Your task to perform on an android device: Show me popular videos on Youtube Image 0: 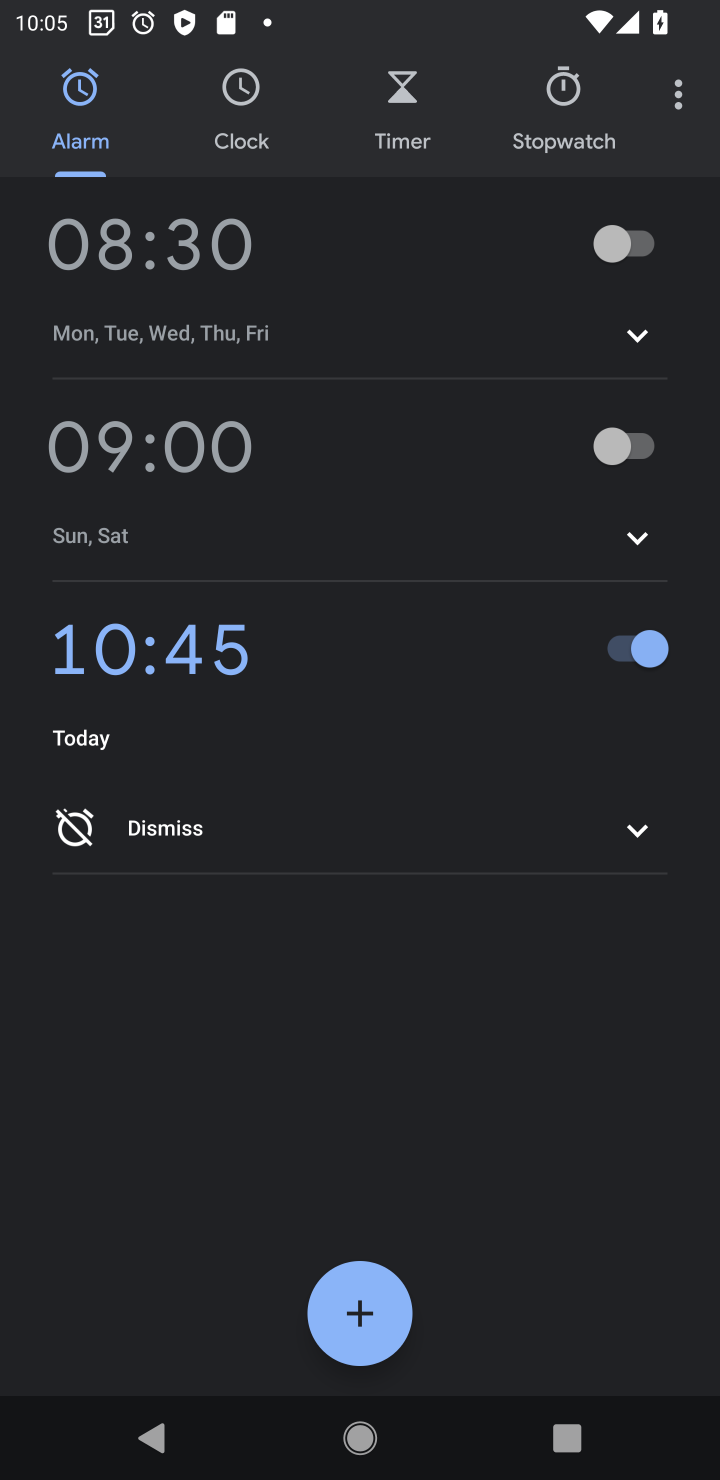
Step 0: press home button
Your task to perform on an android device: Show me popular videos on Youtube Image 1: 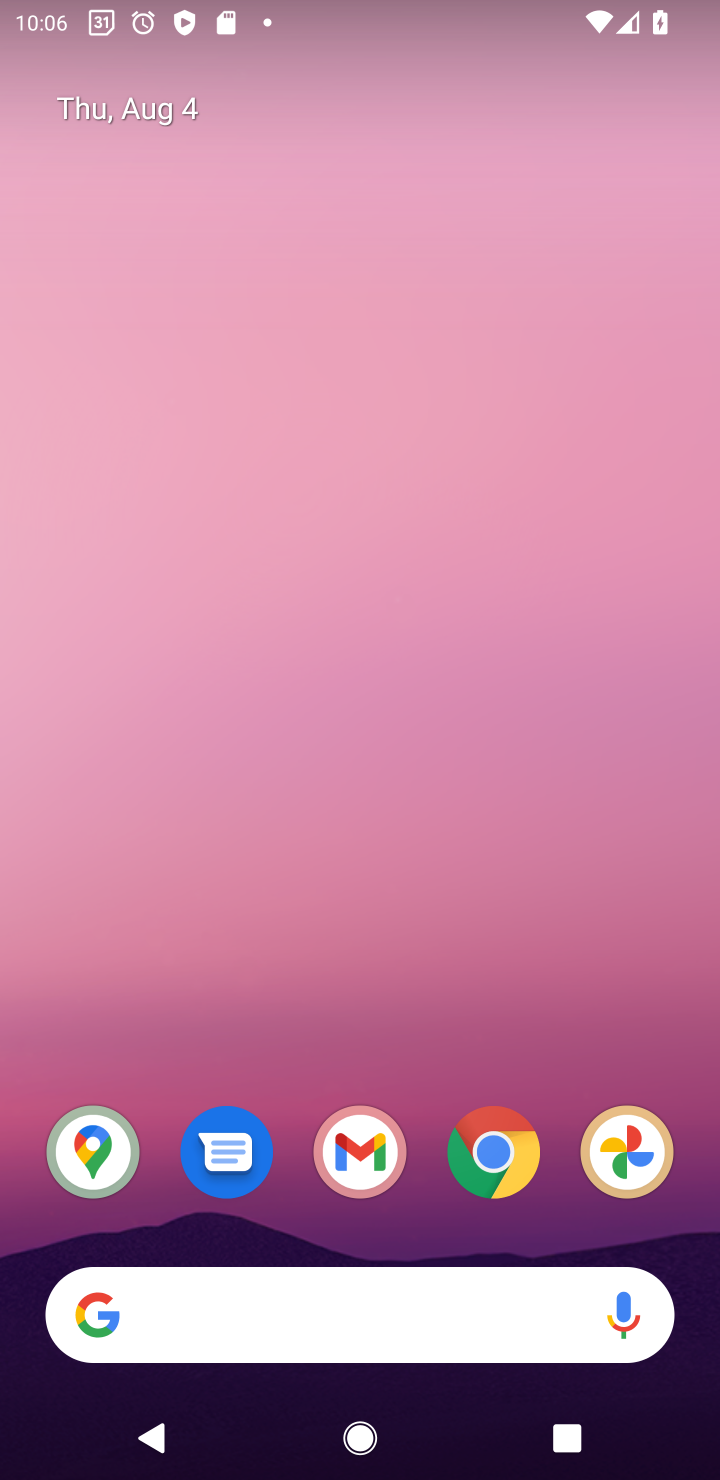
Step 1: drag from (7, 587) to (464, 69)
Your task to perform on an android device: Show me popular videos on Youtube Image 2: 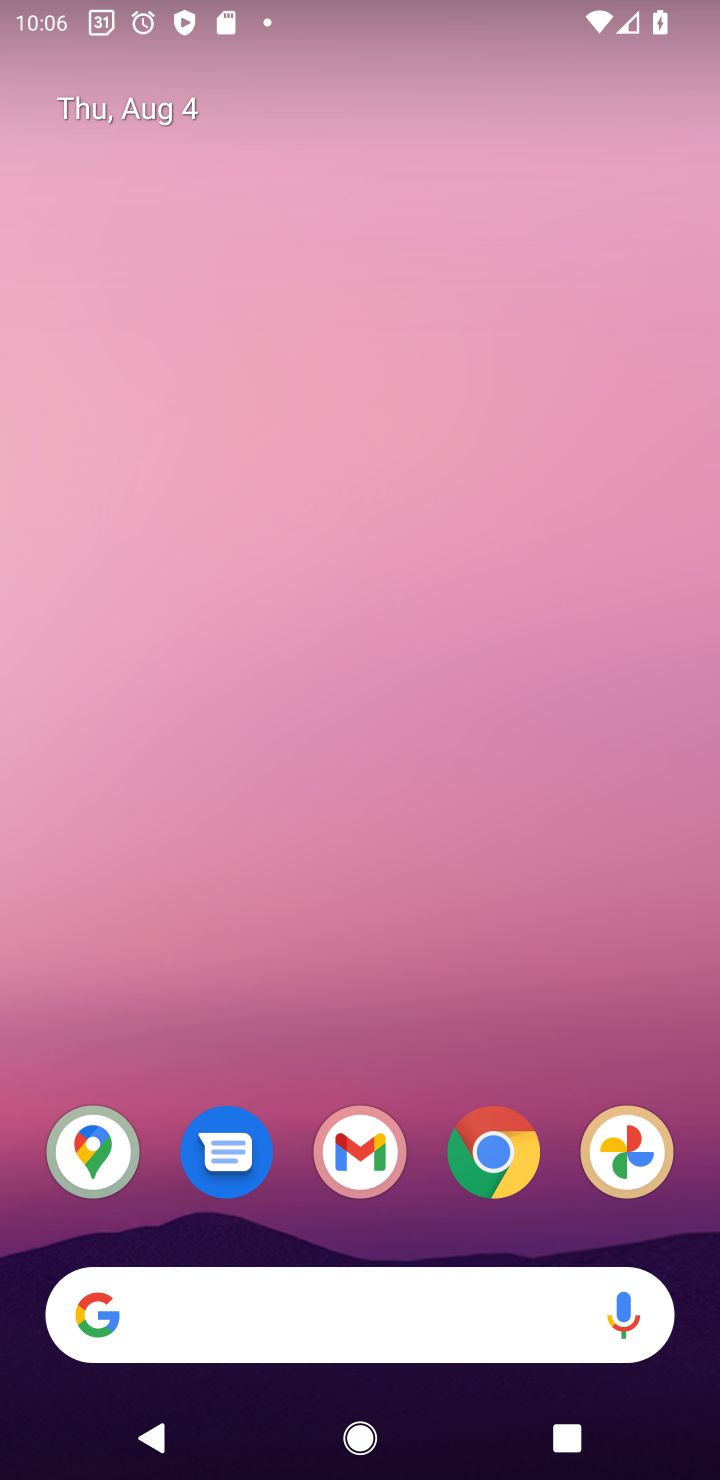
Step 2: drag from (16, 1316) to (427, 65)
Your task to perform on an android device: Show me popular videos on Youtube Image 3: 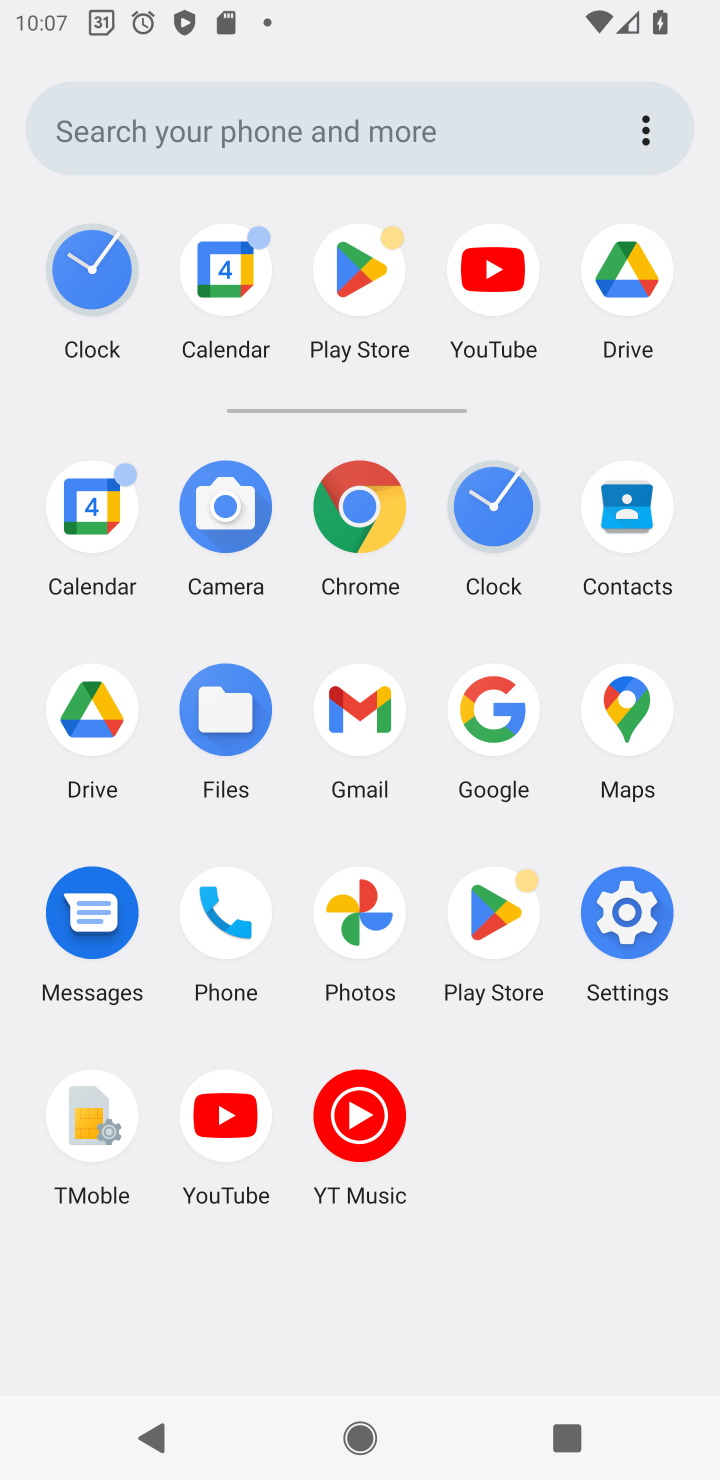
Step 3: click (218, 1102)
Your task to perform on an android device: Show me popular videos on Youtube Image 4: 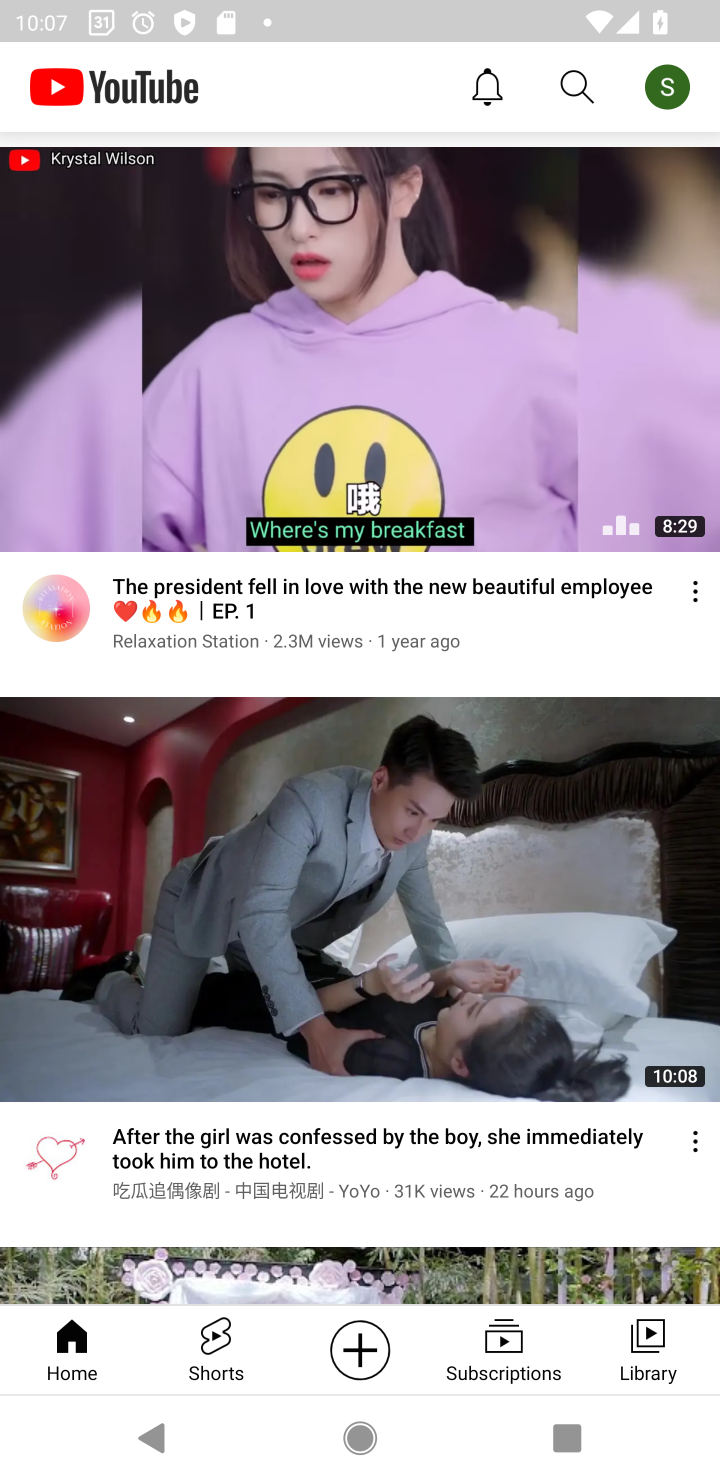
Step 4: task complete